Your task to perform on an android device: toggle notification dots Image 0: 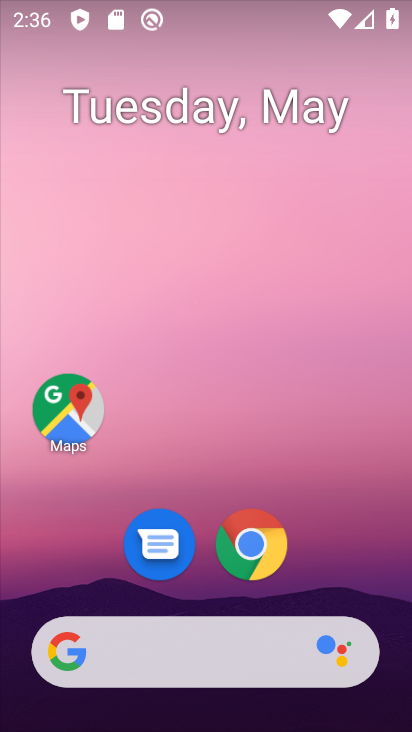
Step 0: drag from (334, 565) to (292, 58)
Your task to perform on an android device: toggle notification dots Image 1: 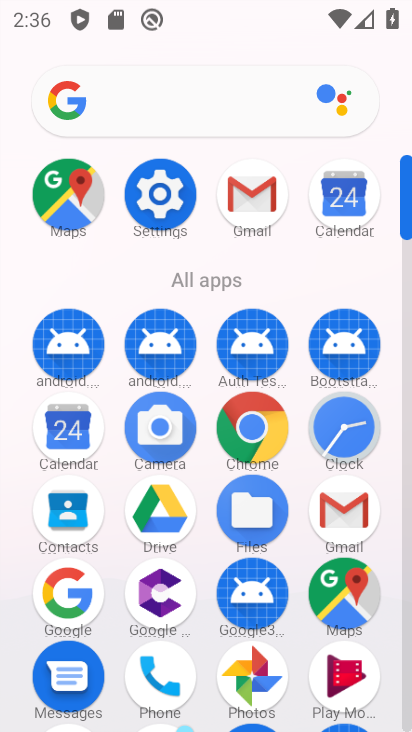
Step 1: click (159, 194)
Your task to perform on an android device: toggle notification dots Image 2: 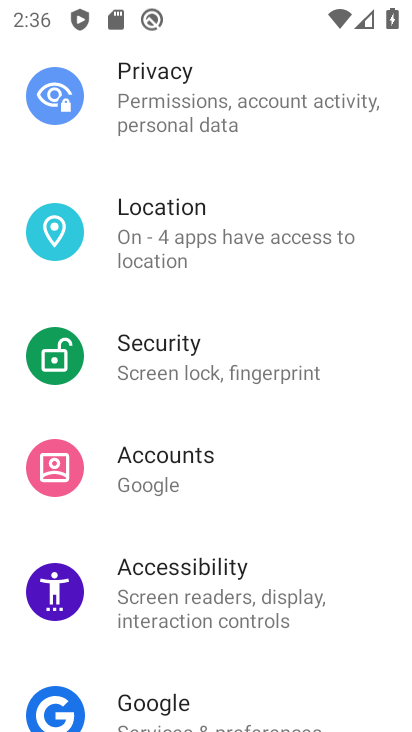
Step 2: drag from (243, 189) to (237, 329)
Your task to perform on an android device: toggle notification dots Image 3: 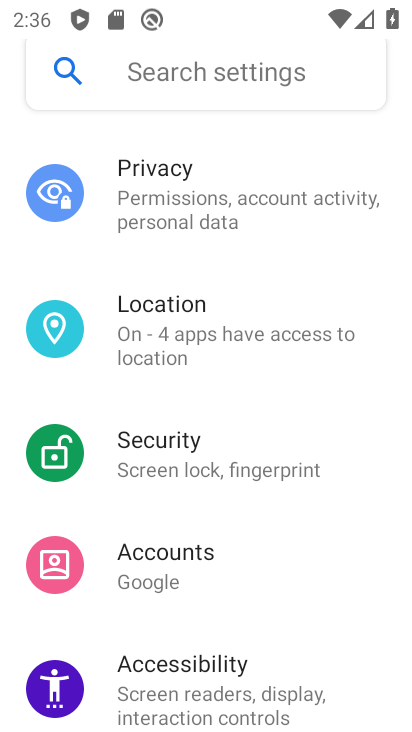
Step 3: drag from (256, 157) to (271, 352)
Your task to perform on an android device: toggle notification dots Image 4: 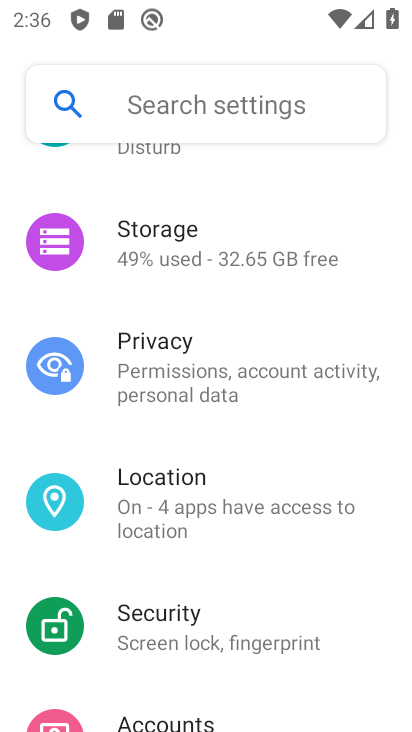
Step 4: drag from (255, 199) to (270, 358)
Your task to perform on an android device: toggle notification dots Image 5: 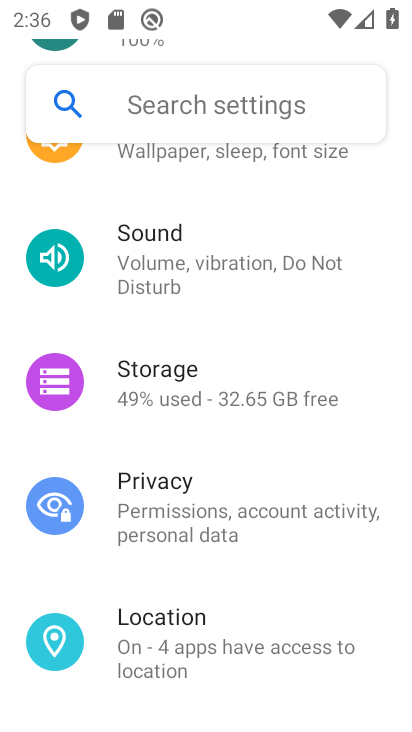
Step 5: drag from (242, 213) to (247, 366)
Your task to perform on an android device: toggle notification dots Image 6: 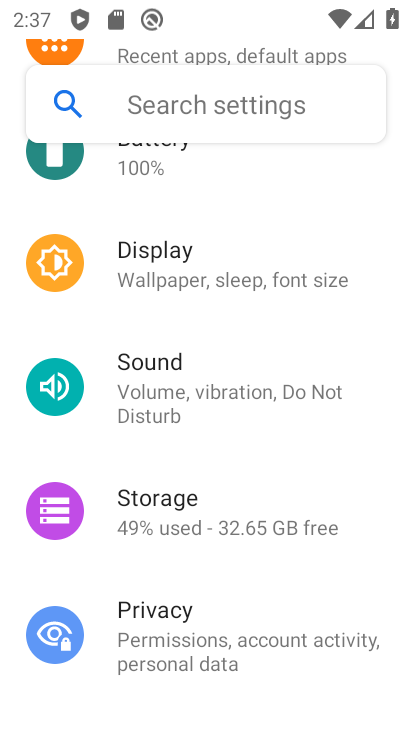
Step 6: drag from (229, 221) to (247, 358)
Your task to perform on an android device: toggle notification dots Image 7: 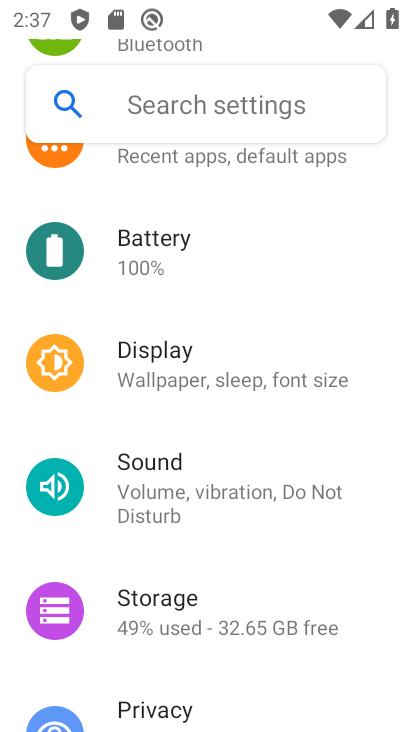
Step 7: drag from (220, 216) to (250, 346)
Your task to perform on an android device: toggle notification dots Image 8: 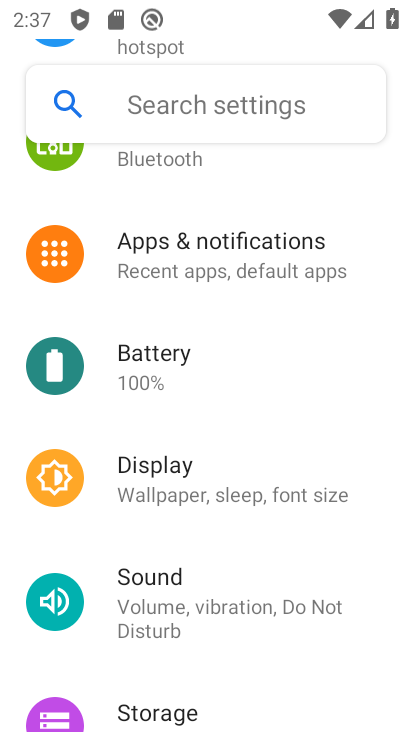
Step 8: click (210, 255)
Your task to perform on an android device: toggle notification dots Image 9: 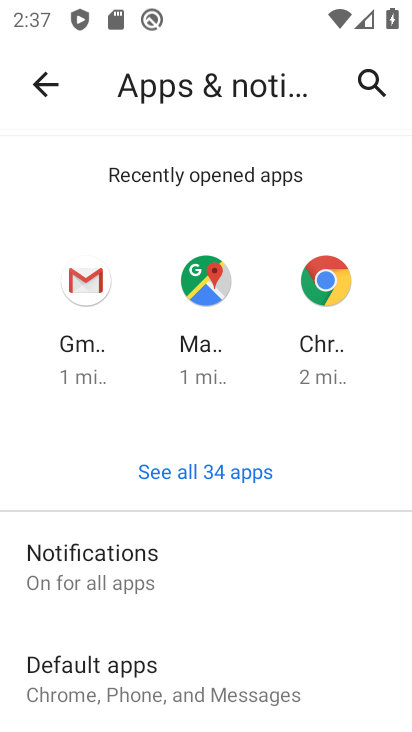
Step 9: click (111, 549)
Your task to perform on an android device: toggle notification dots Image 10: 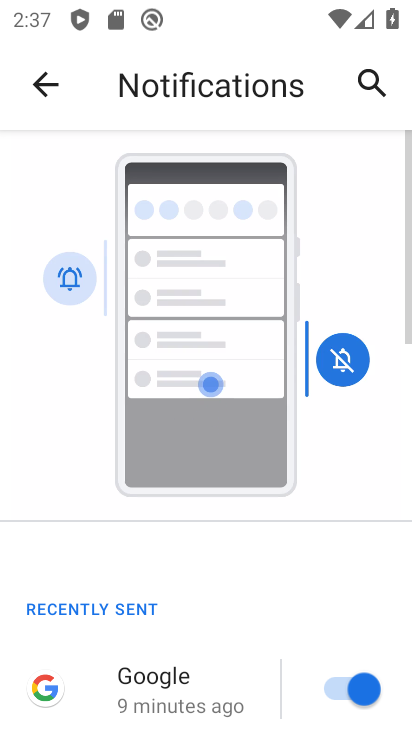
Step 10: drag from (186, 603) to (218, 437)
Your task to perform on an android device: toggle notification dots Image 11: 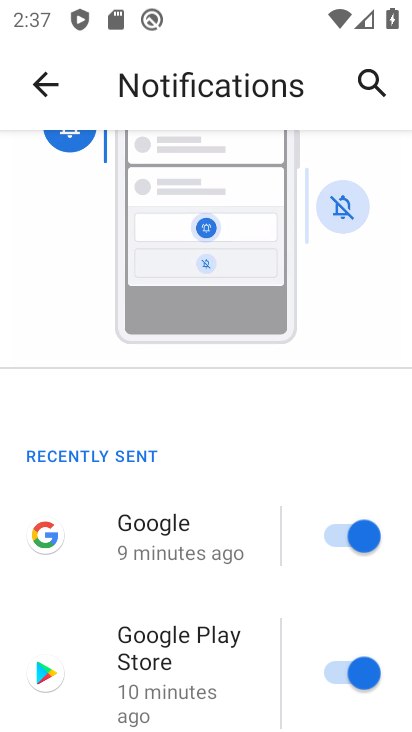
Step 11: drag from (159, 588) to (215, 460)
Your task to perform on an android device: toggle notification dots Image 12: 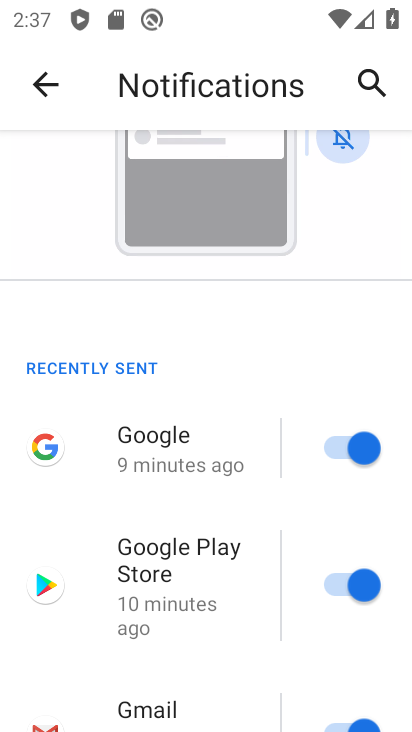
Step 12: drag from (159, 672) to (264, 435)
Your task to perform on an android device: toggle notification dots Image 13: 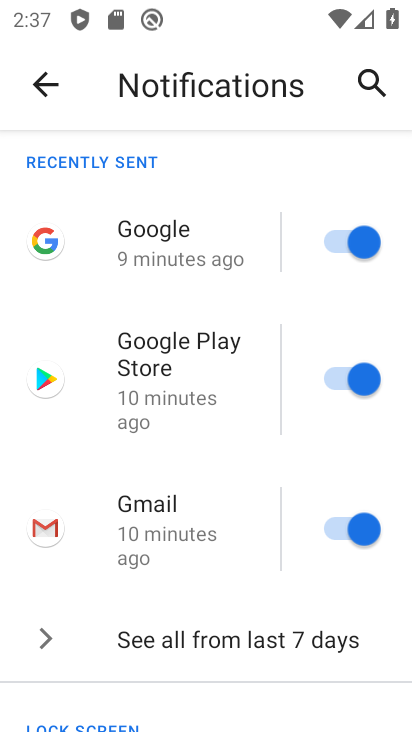
Step 13: drag from (175, 676) to (223, 495)
Your task to perform on an android device: toggle notification dots Image 14: 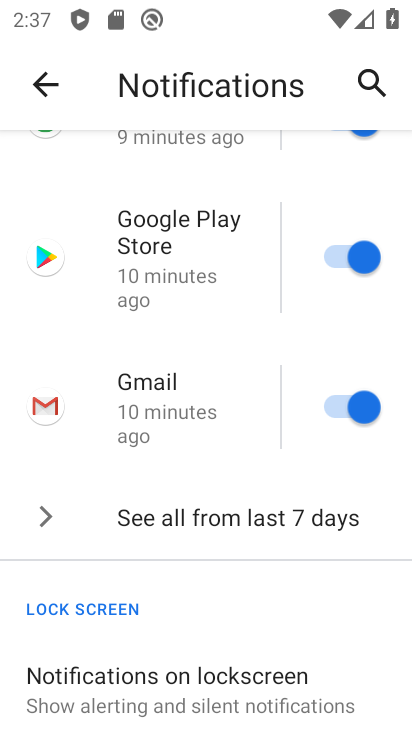
Step 14: drag from (191, 631) to (250, 400)
Your task to perform on an android device: toggle notification dots Image 15: 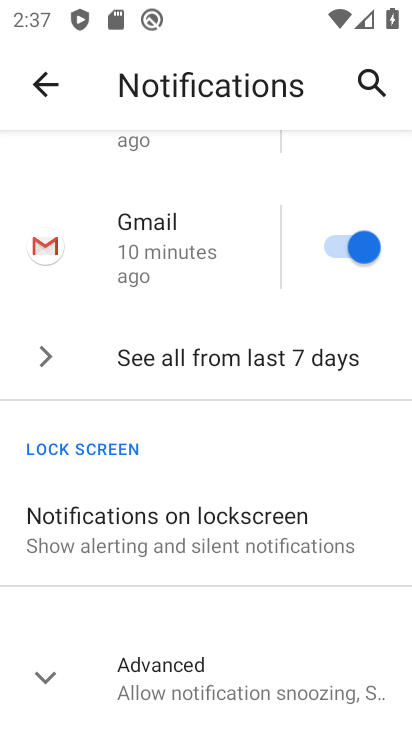
Step 15: drag from (207, 674) to (240, 498)
Your task to perform on an android device: toggle notification dots Image 16: 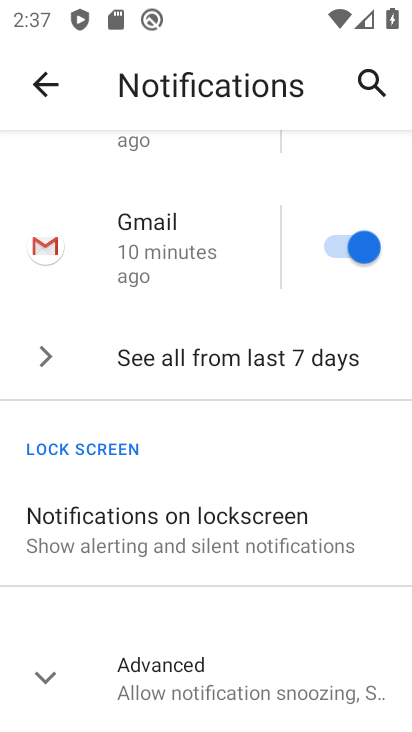
Step 16: click (234, 697)
Your task to perform on an android device: toggle notification dots Image 17: 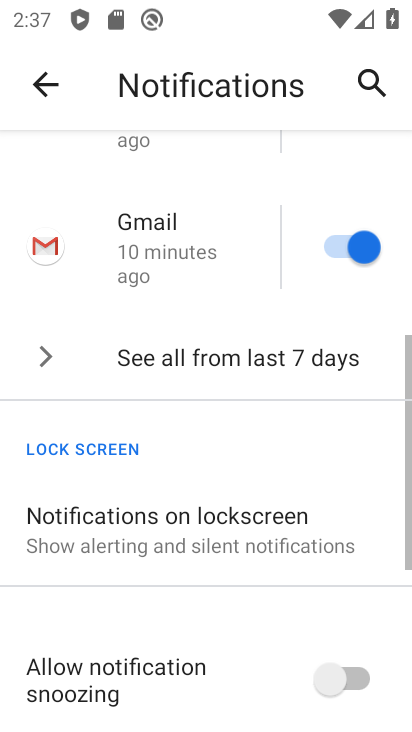
Step 17: drag from (234, 697) to (302, 424)
Your task to perform on an android device: toggle notification dots Image 18: 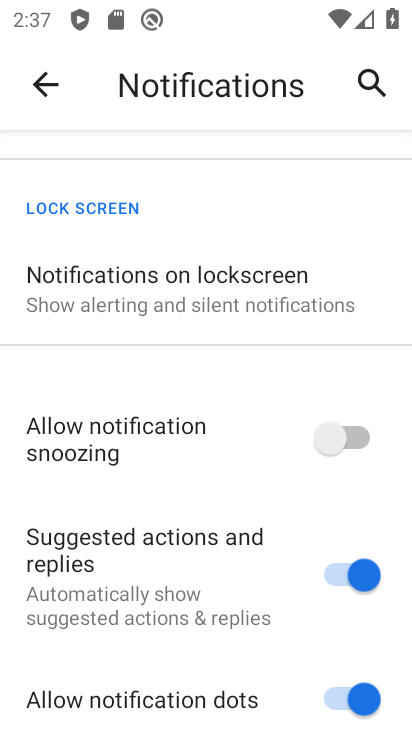
Step 18: click (358, 705)
Your task to perform on an android device: toggle notification dots Image 19: 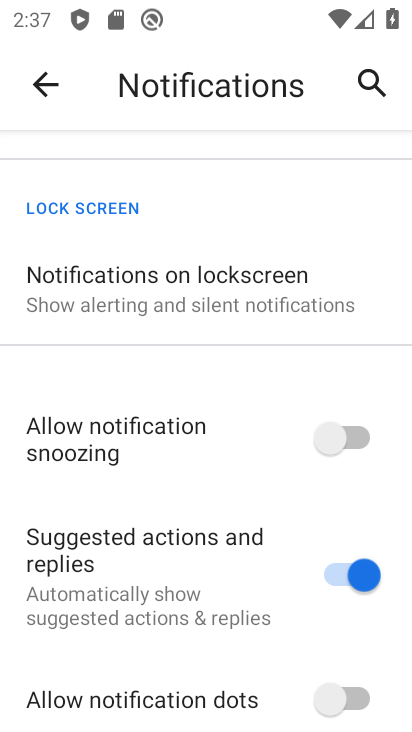
Step 19: task complete